Your task to perform on an android device: turn on the 12-hour format for clock Image 0: 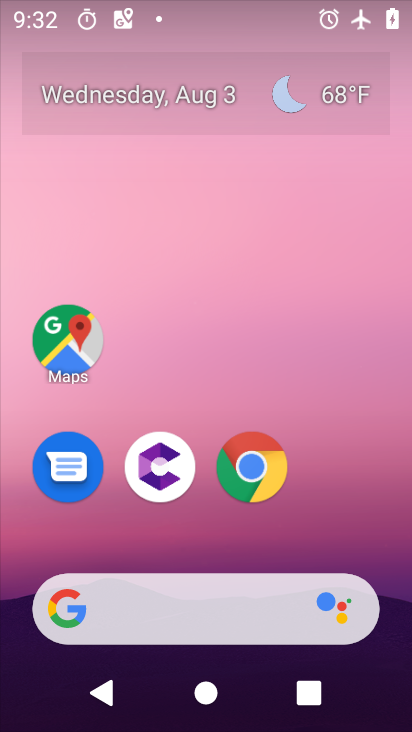
Step 0: drag from (371, 478) to (331, 77)
Your task to perform on an android device: turn on the 12-hour format for clock Image 1: 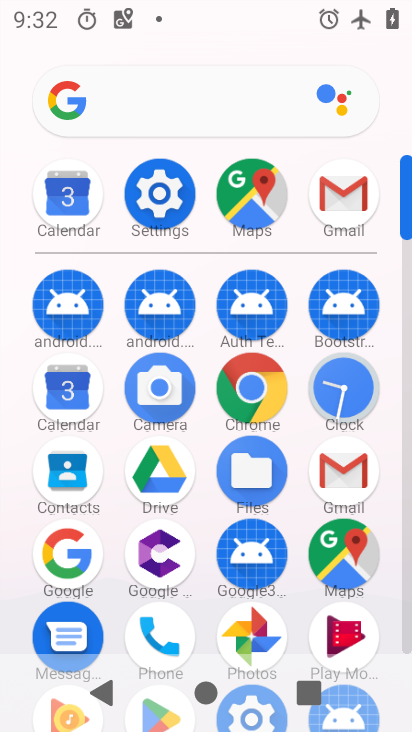
Step 1: click (358, 392)
Your task to perform on an android device: turn on the 12-hour format for clock Image 2: 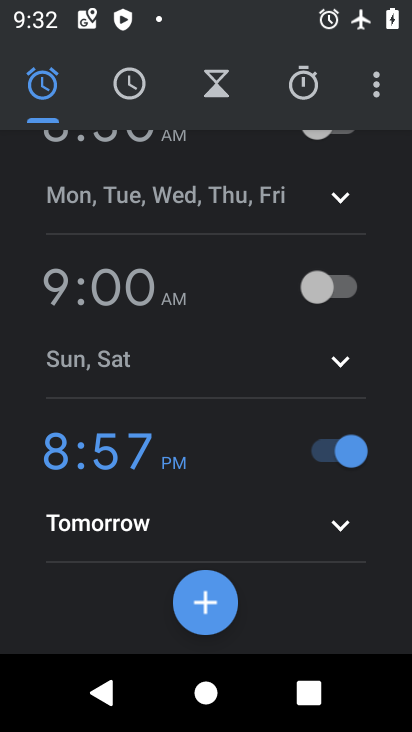
Step 2: click (383, 87)
Your task to perform on an android device: turn on the 12-hour format for clock Image 3: 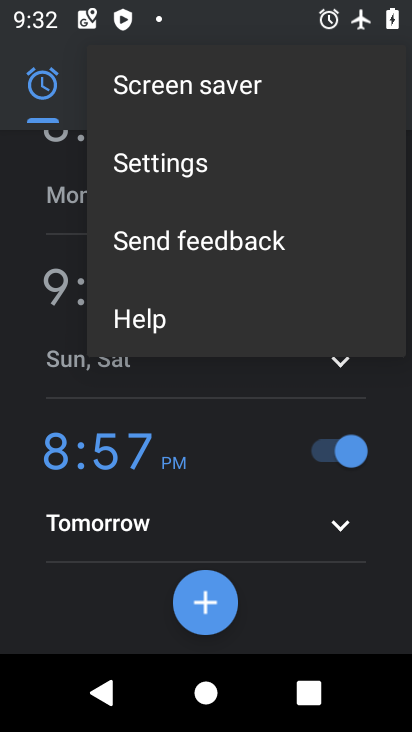
Step 3: click (196, 171)
Your task to perform on an android device: turn on the 12-hour format for clock Image 4: 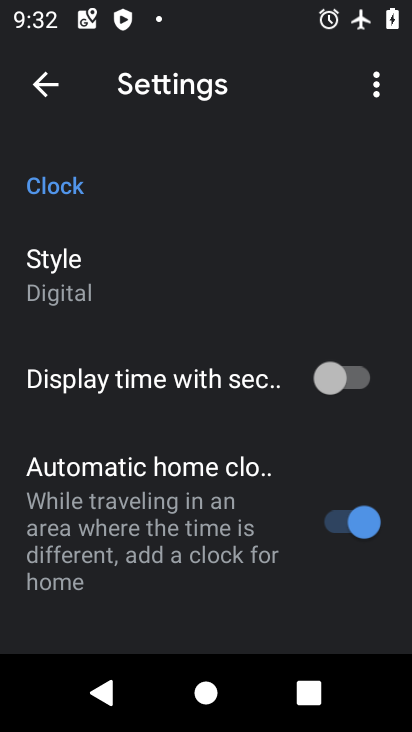
Step 4: drag from (218, 559) to (218, 110)
Your task to perform on an android device: turn on the 12-hour format for clock Image 5: 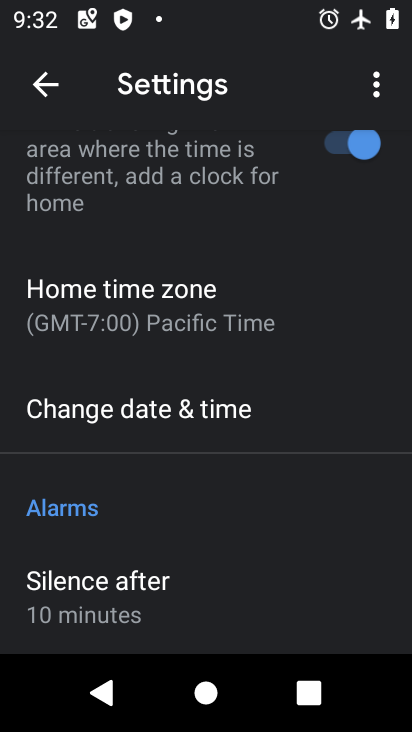
Step 5: click (219, 402)
Your task to perform on an android device: turn on the 12-hour format for clock Image 6: 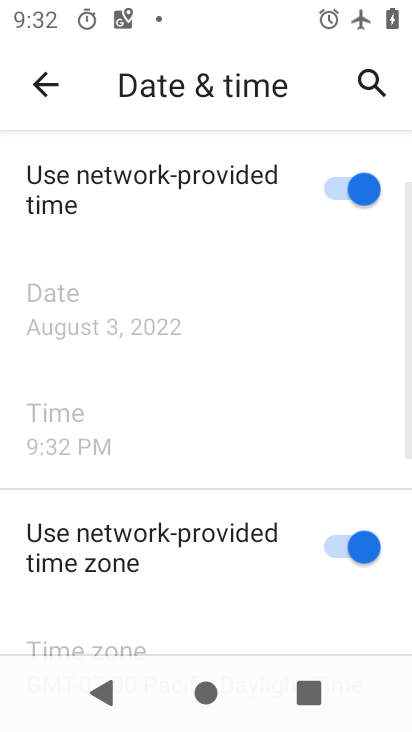
Step 6: task complete